Your task to perform on an android device: Open Chrome and go to settings Image 0: 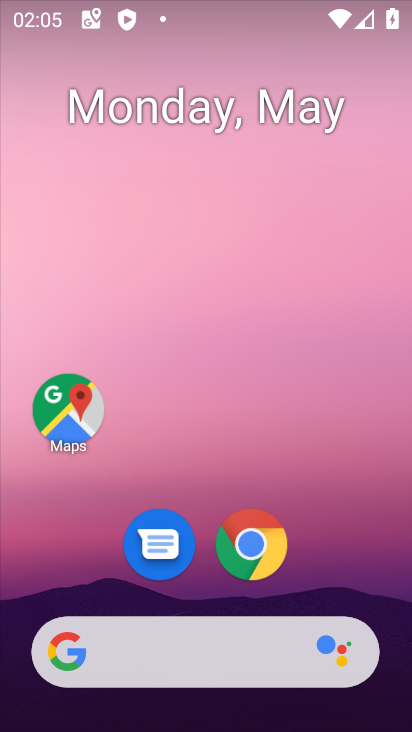
Step 0: drag from (380, 590) to (375, 255)
Your task to perform on an android device: Open Chrome and go to settings Image 1: 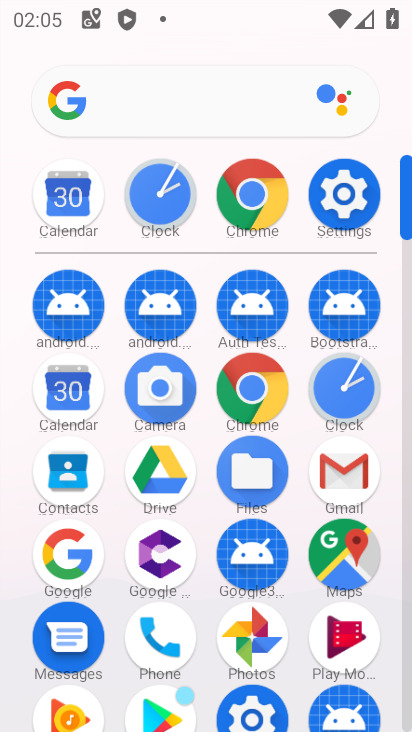
Step 1: click (269, 404)
Your task to perform on an android device: Open Chrome and go to settings Image 2: 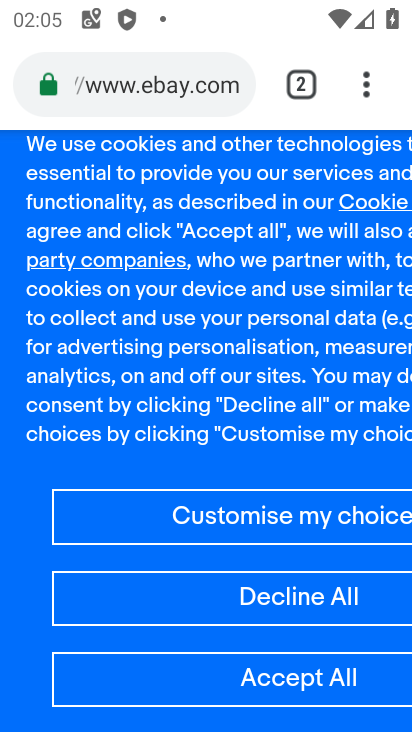
Step 2: click (369, 100)
Your task to perform on an android device: Open Chrome and go to settings Image 3: 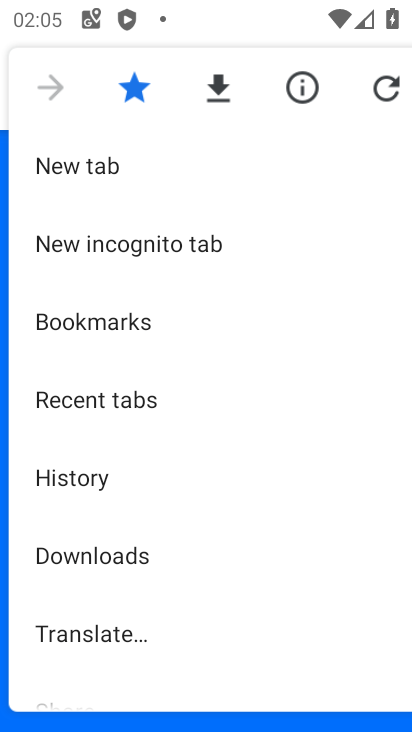
Step 3: drag from (318, 530) to (314, 442)
Your task to perform on an android device: Open Chrome and go to settings Image 4: 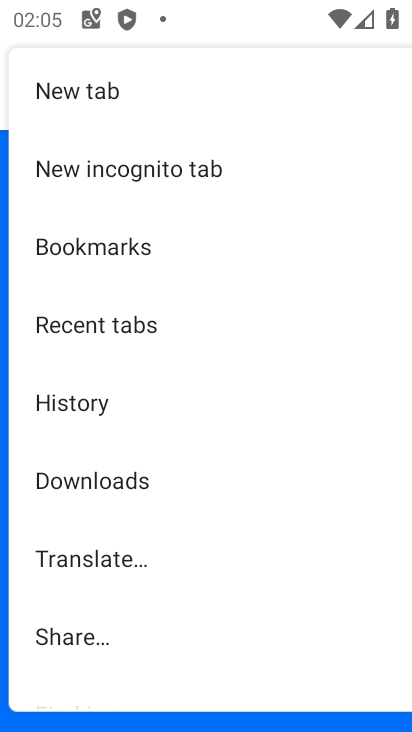
Step 4: drag from (323, 548) to (316, 461)
Your task to perform on an android device: Open Chrome and go to settings Image 5: 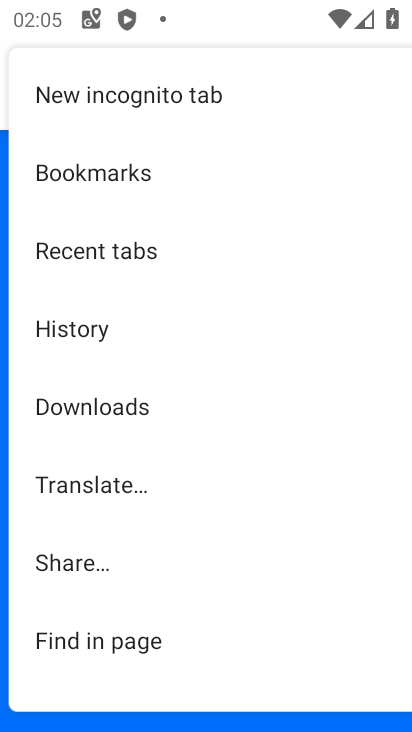
Step 5: drag from (309, 525) to (306, 445)
Your task to perform on an android device: Open Chrome and go to settings Image 6: 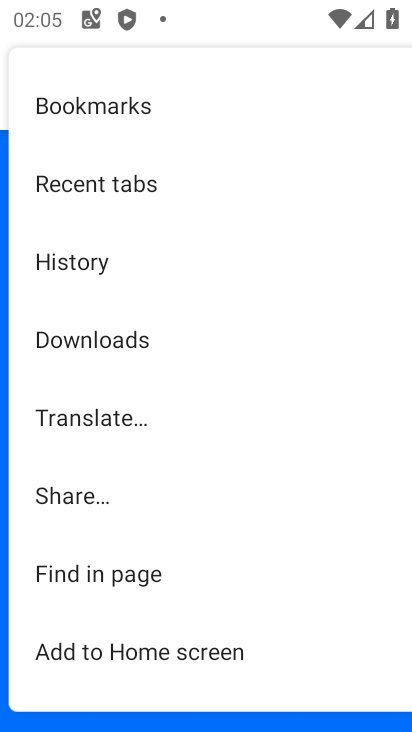
Step 6: drag from (301, 521) to (308, 424)
Your task to perform on an android device: Open Chrome and go to settings Image 7: 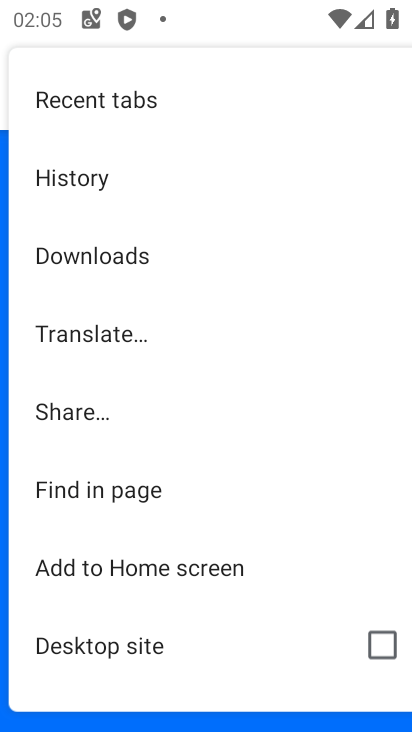
Step 7: drag from (296, 504) to (295, 393)
Your task to perform on an android device: Open Chrome and go to settings Image 8: 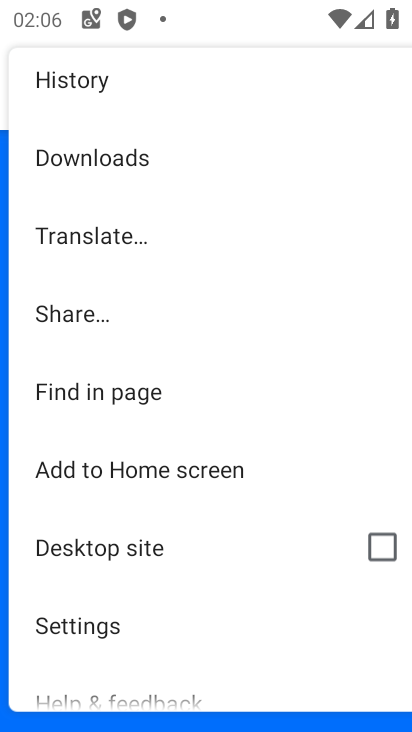
Step 8: drag from (284, 497) to (281, 427)
Your task to perform on an android device: Open Chrome and go to settings Image 9: 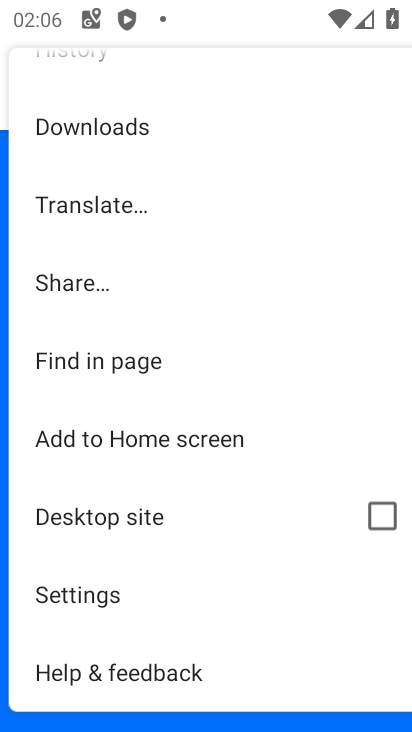
Step 9: drag from (248, 487) to (252, 410)
Your task to perform on an android device: Open Chrome and go to settings Image 10: 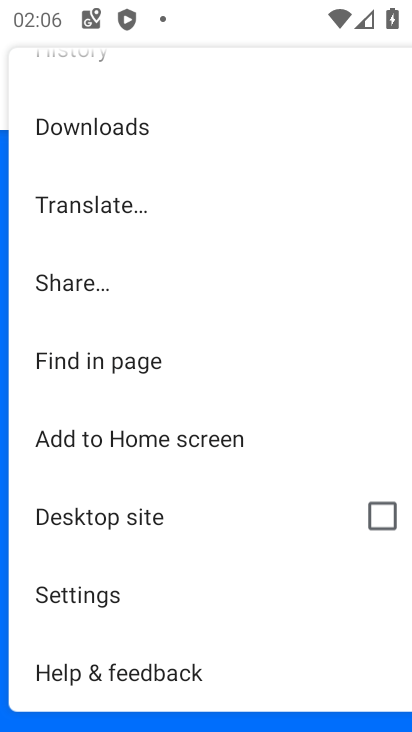
Step 10: click (162, 589)
Your task to perform on an android device: Open Chrome and go to settings Image 11: 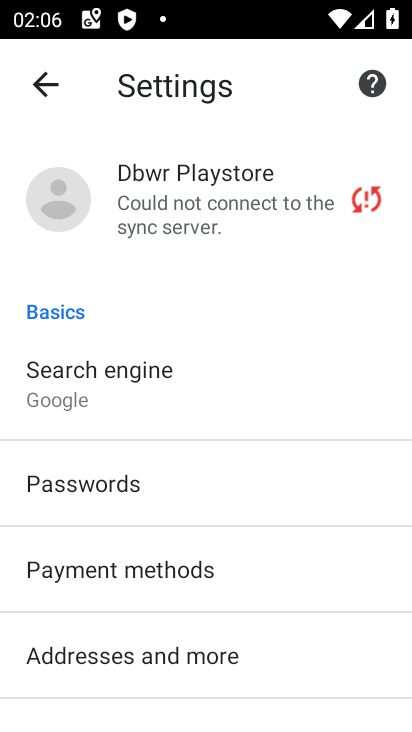
Step 11: task complete